Your task to perform on an android device: Open Google Maps Image 0: 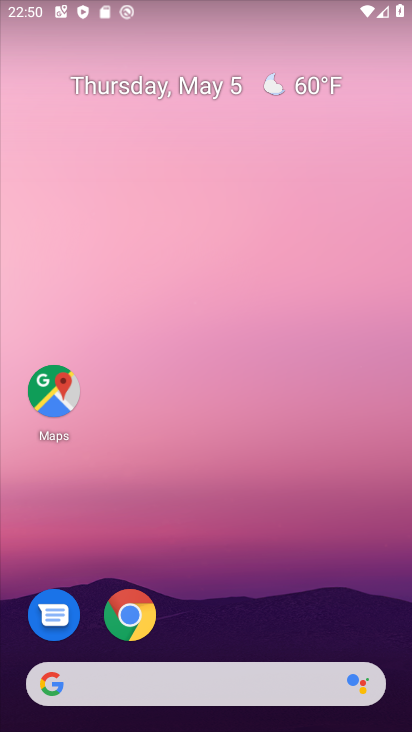
Step 0: click (59, 390)
Your task to perform on an android device: Open Google Maps Image 1: 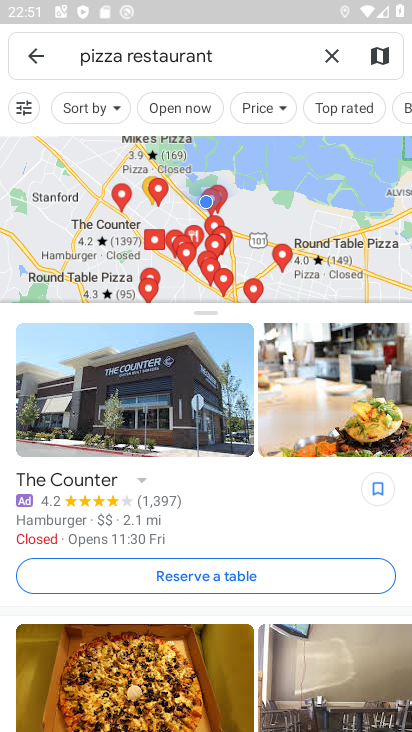
Step 1: task complete